Your task to perform on an android device: Go to accessibility settings Image 0: 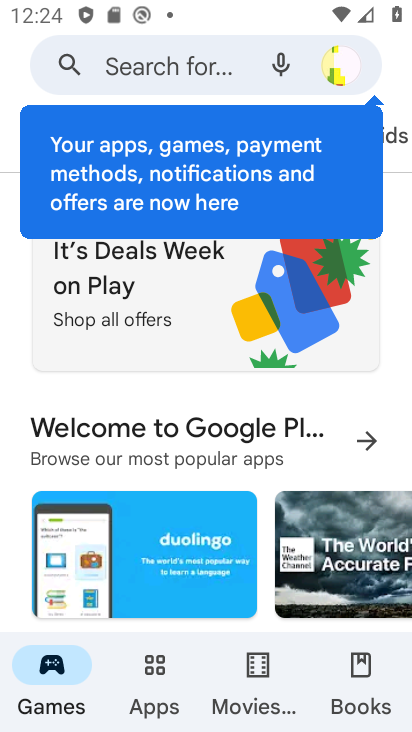
Step 0: press home button
Your task to perform on an android device: Go to accessibility settings Image 1: 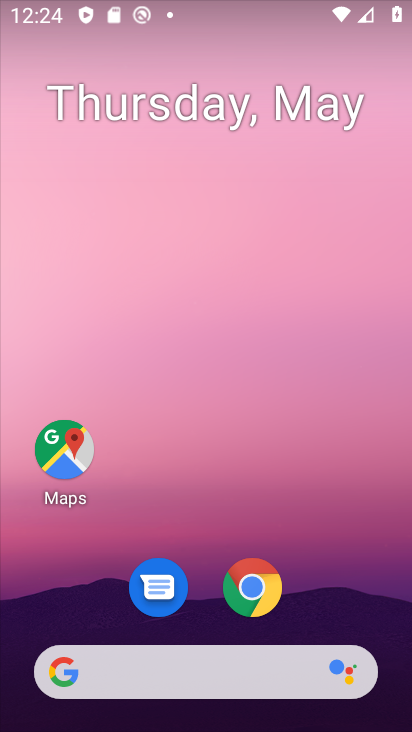
Step 1: drag from (81, 643) to (214, 130)
Your task to perform on an android device: Go to accessibility settings Image 2: 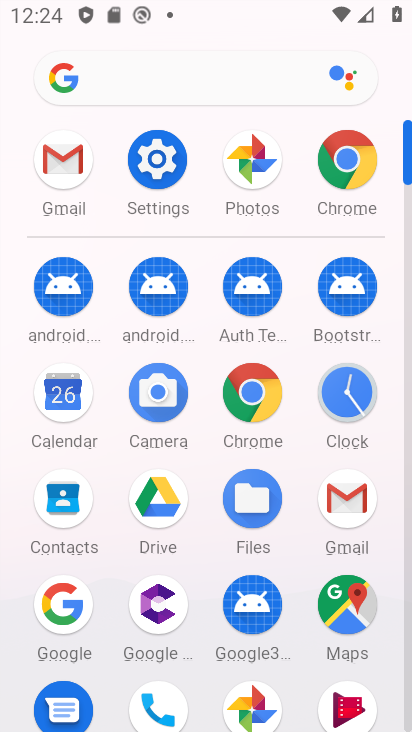
Step 2: click (164, 152)
Your task to perform on an android device: Go to accessibility settings Image 3: 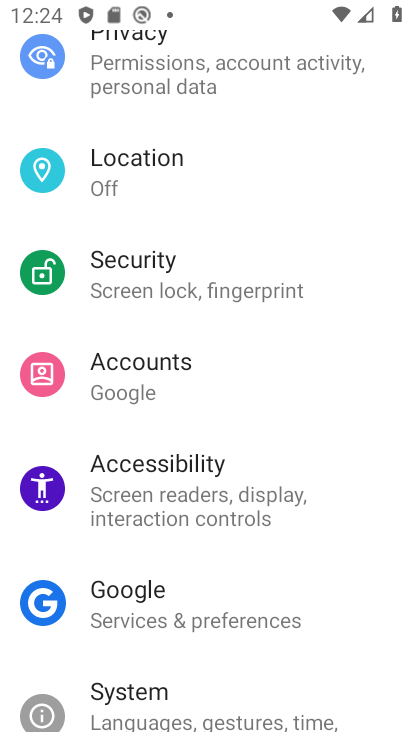
Step 3: click (149, 534)
Your task to perform on an android device: Go to accessibility settings Image 4: 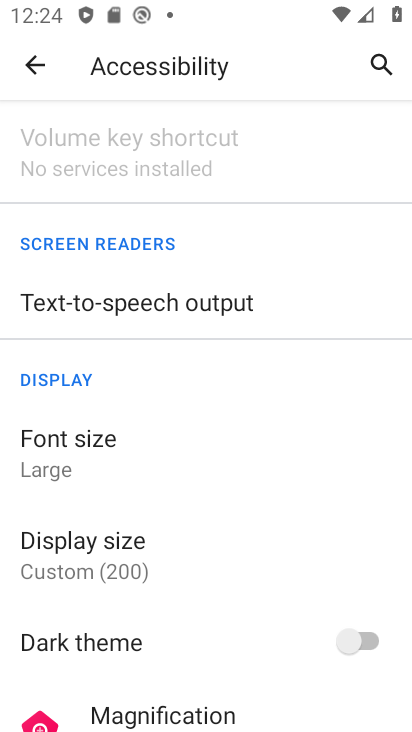
Step 4: task complete